Your task to perform on an android device: Toggle the flashlight Image 0: 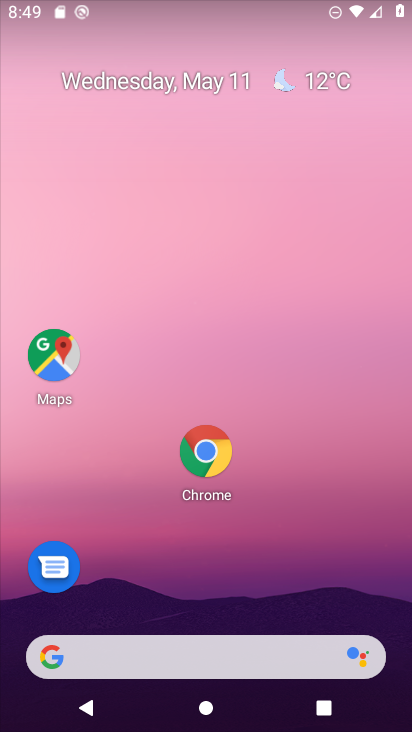
Step 0: drag from (225, 5) to (160, 368)
Your task to perform on an android device: Toggle the flashlight Image 1: 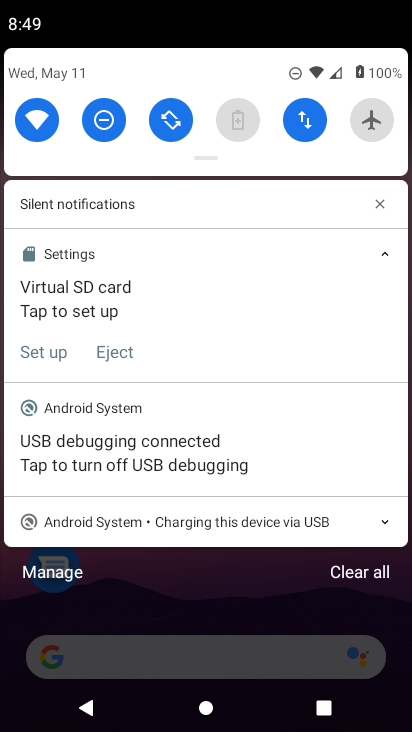
Step 1: task complete